Your task to perform on an android device: Do I have any events tomorrow? Image 0: 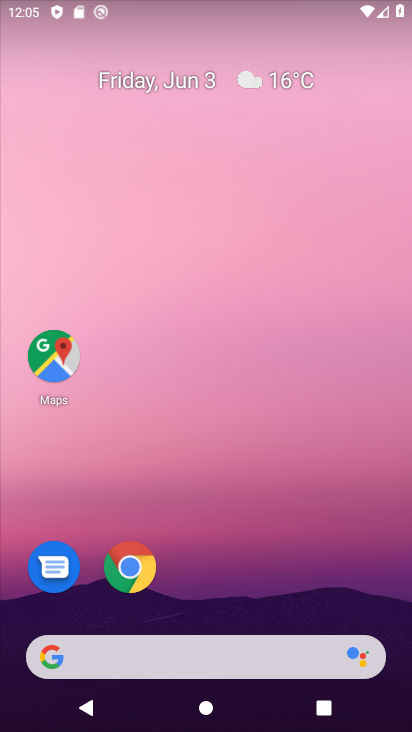
Step 0: drag from (245, 315) to (325, 71)
Your task to perform on an android device: Do I have any events tomorrow? Image 1: 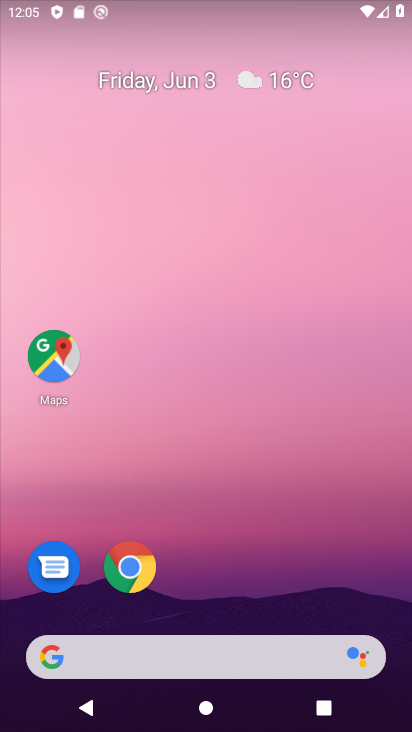
Step 1: drag from (260, 567) to (294, 57)
Your task to perform on an android device: Do I have any events tomorrow? Image 2: 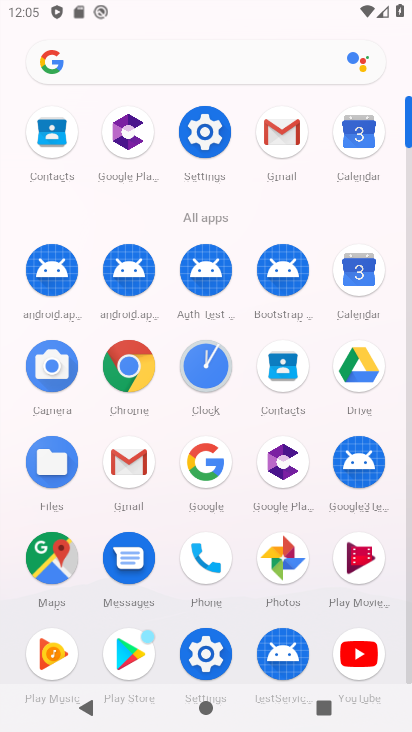
Step 2: click (342, 260)
Your task to perform on an android device: Do I have any events tomorrow? Image 3: 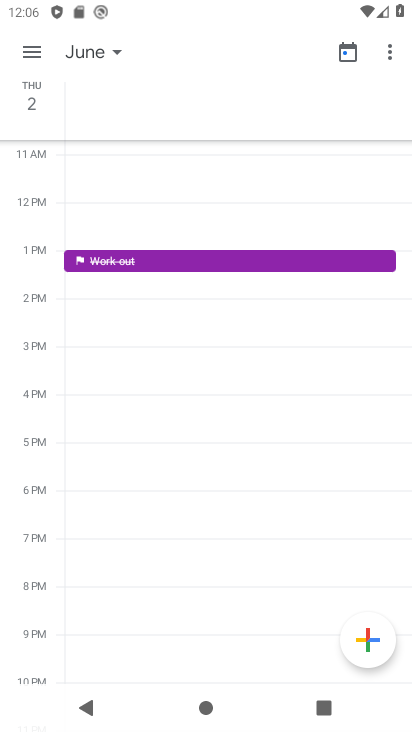
Step 3: click (117, 45)
Your task to perform on an android device: Do I have any events tomorrow? Image 4: 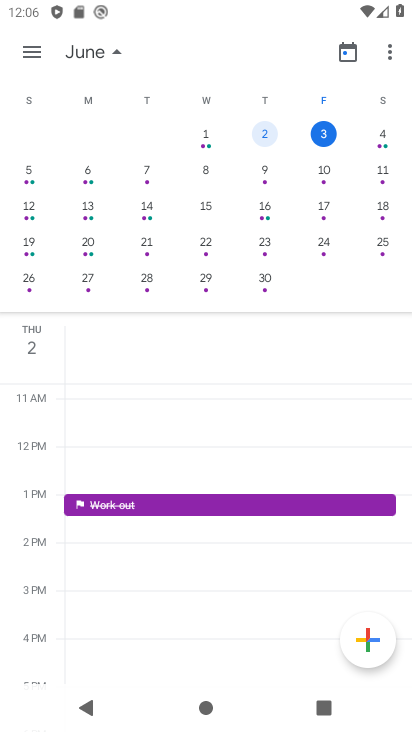
Step 4: click (369, 129)
Your task to perform on an android device: Do I have any events tomorrow? Image 5: 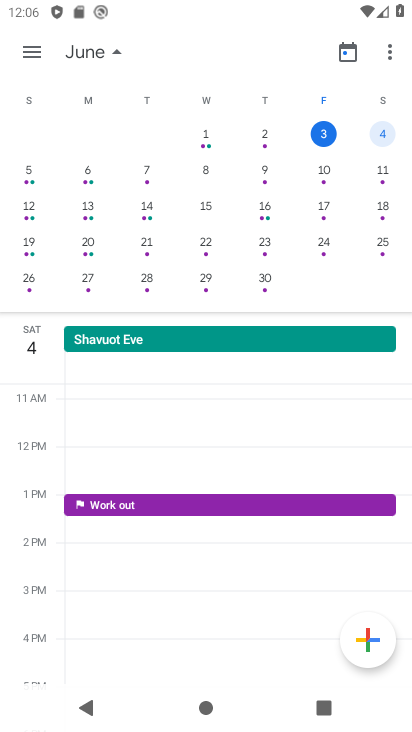
Step 5: task complete